Your task to perform on an android device: Clear the cart on costco.com. Image 0: 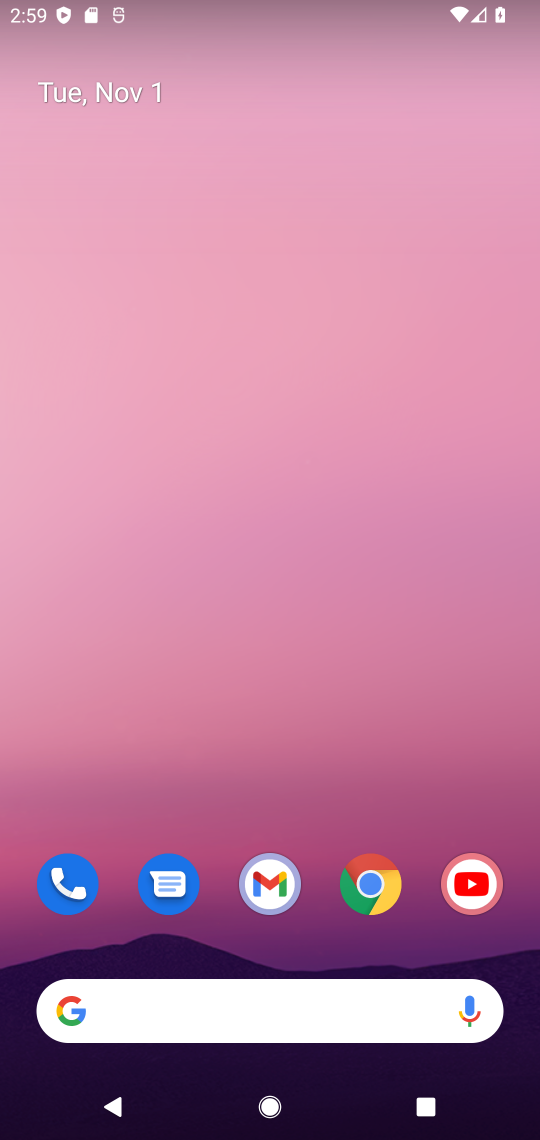
Step 0: click (381, 885)
Your task to perform on an android device: Clear the cart on costco.com. Image 1: 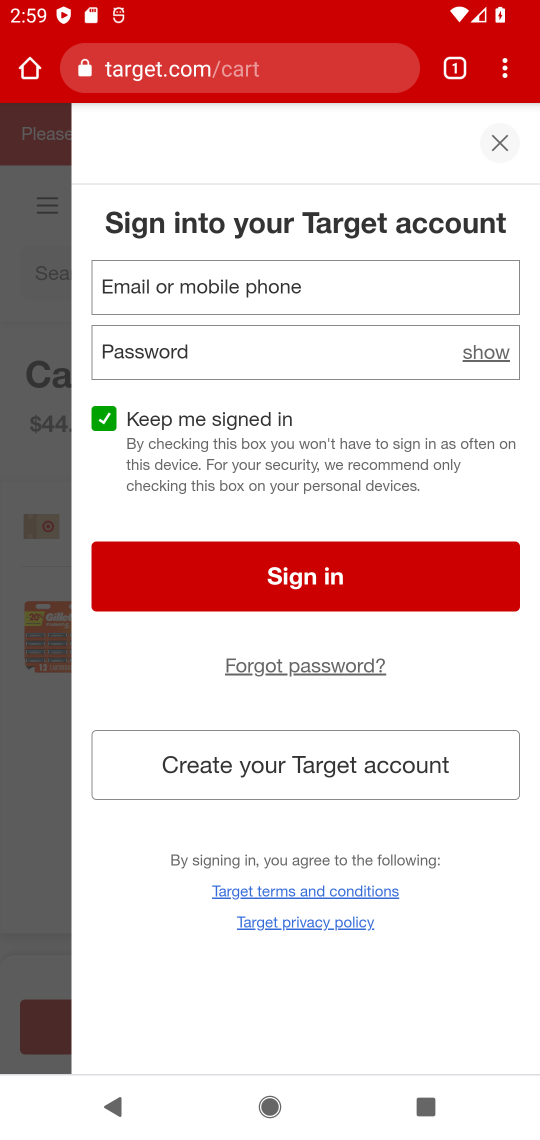
Step 1: click (326, 62)
Your task to perform on an android device: Clear the cart on costco.com. Image 2: 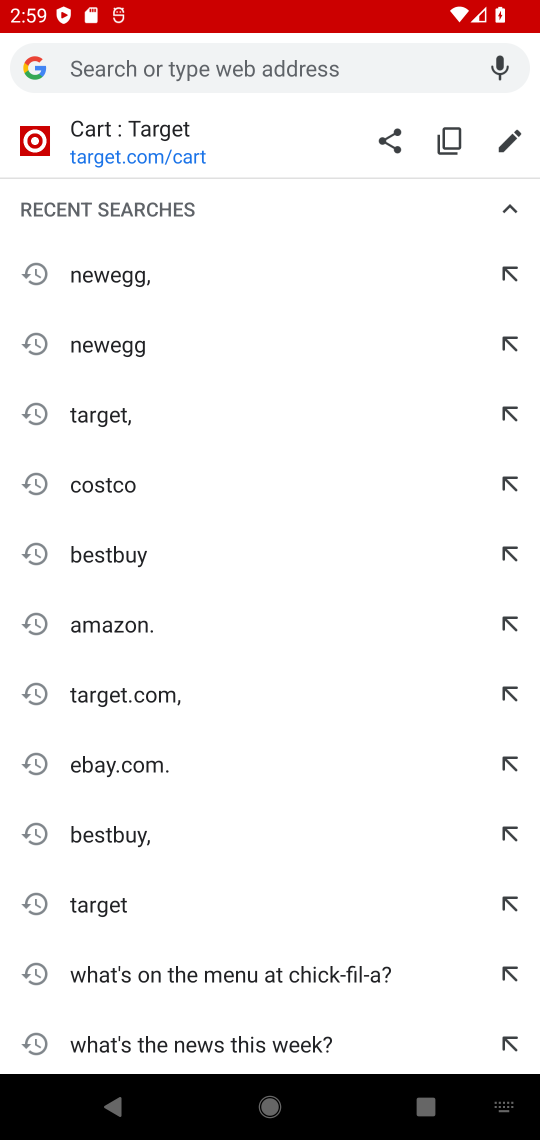
Step 2: type " costco.com"
Your task to perform on an android device: Clear the cart on costco.com. Image 3: 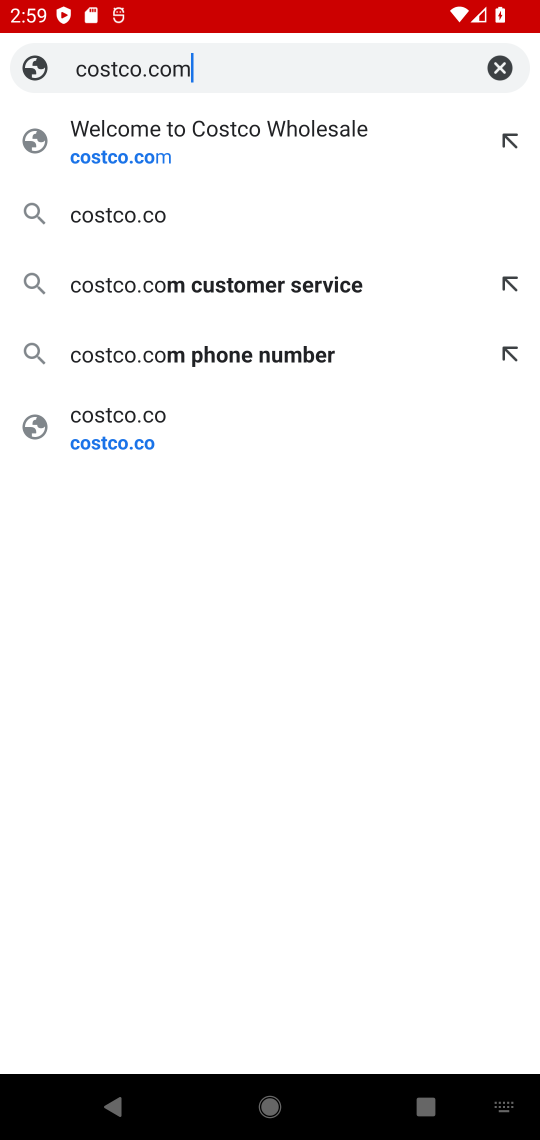
Step 3: press enter
Your task to perform on an android device: Clear the cart on costco.com. Image 4: 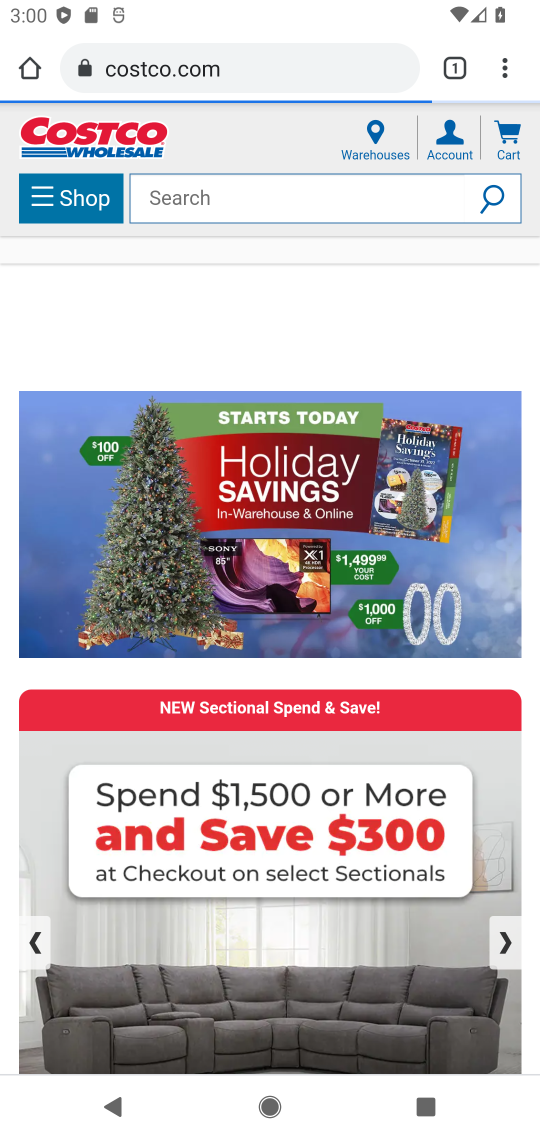
Step 4: click (500, 138)
Your task to perform on an android device: Clear the cart on costco.com. Image 5: 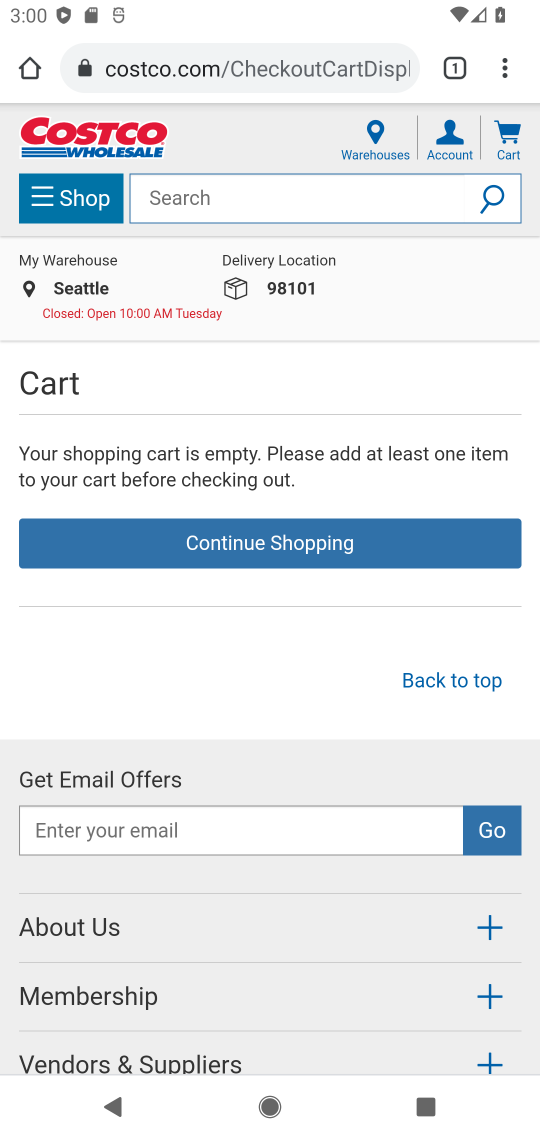
Step 5: task complete